Your task to perform on an android device: turn off wifi Image 0: 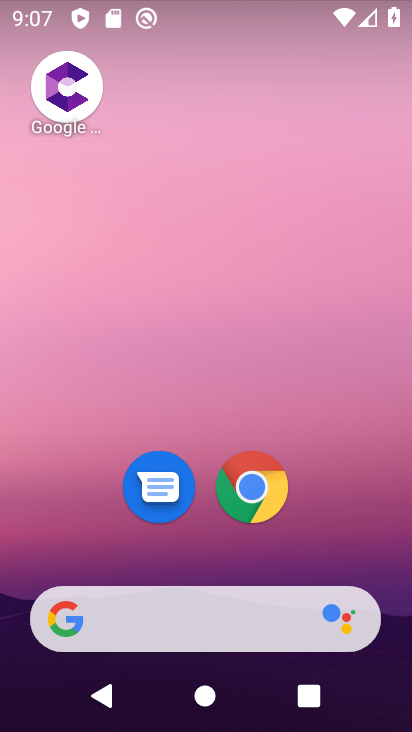
Step 0: drag from (227, 2) to (157, 496)
Your task to perform on an android device: turn off wifi Image 1: 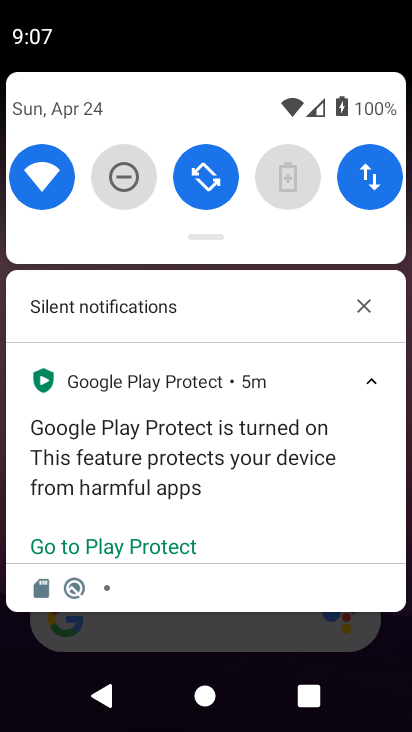
Step 1: click (66, 177)
Your task to perform on an android device: turn off wifi Image 2: 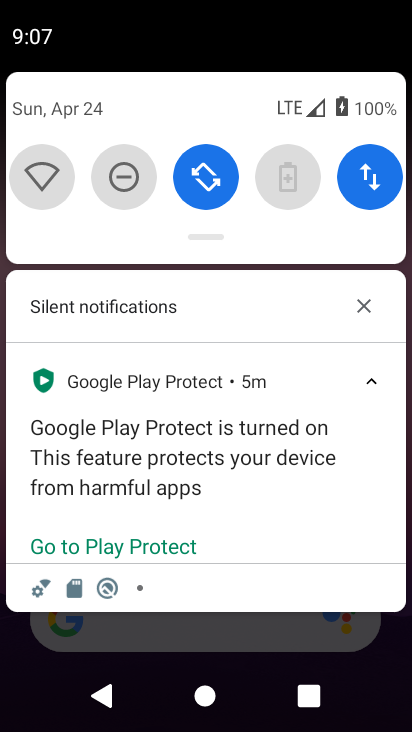
Step 2: task complete